Your task to perform on an android device: Open ESPN.com Image 0: 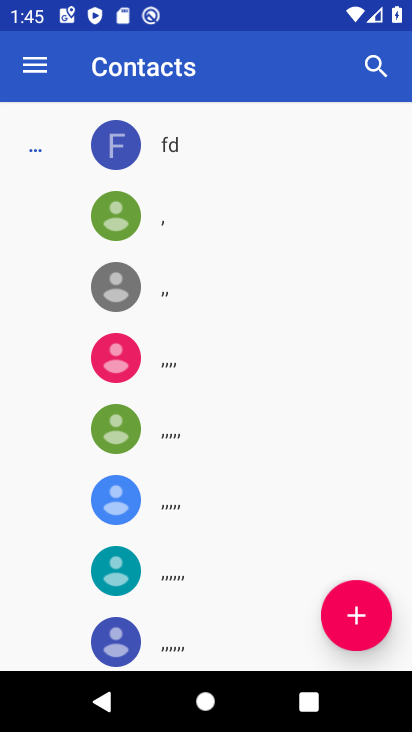
Step 0: press home button
Your task to perform on an android device: Open ESPN.com Image 1: 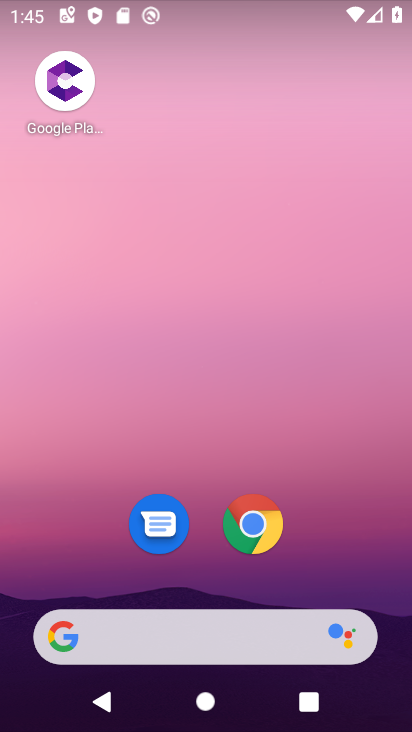
Step 1: click (235, 637)
Your task to perform on an android device: Open ESPN.com Image 2: 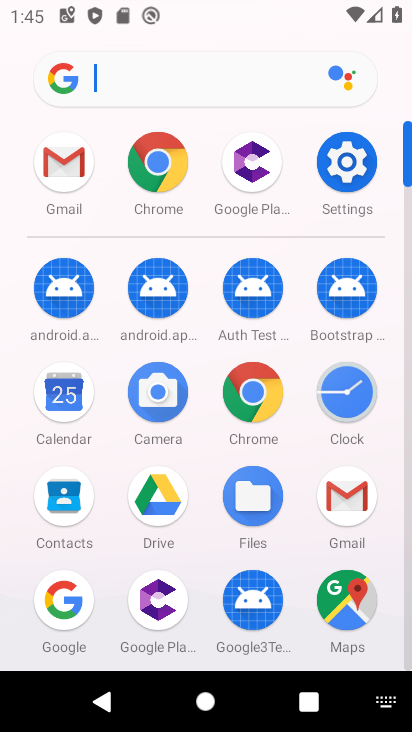
Step 2: type "espn.com"
Your task to perform on an android device: Open ESPN.com Image 3: 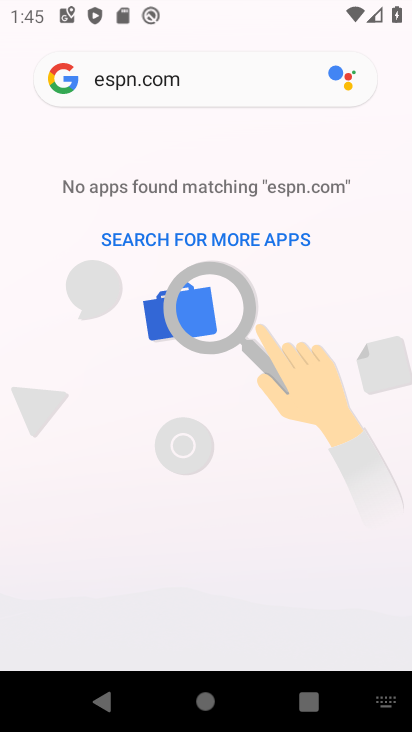
Step 3: click (207, 309)
Your task to perform on an android device: Open ESPN.com Image 4: 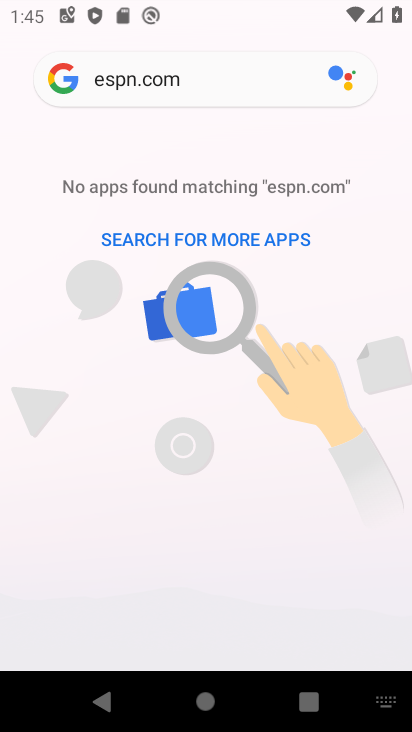
Step 4: press home button
Your task to perform on an android device: Open ESPN.com Image 5: 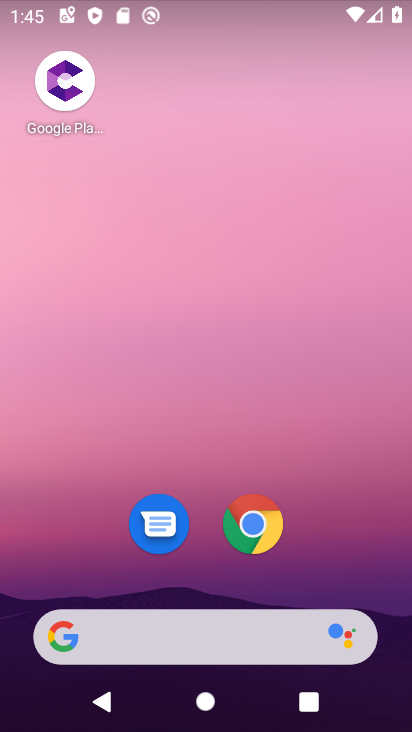
Step 5: click (217, 640)
Your task to perform on an android device: Open ESPN.com Image 6: 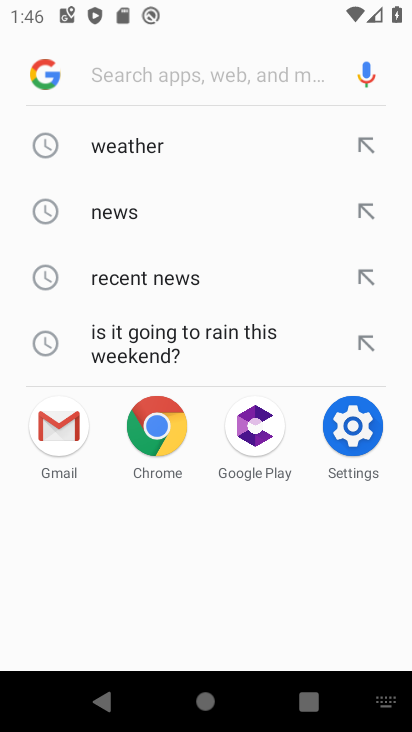
Step 6: type "espn.com"
Your task to perform on an android device: Open ESPN.com Image 7: 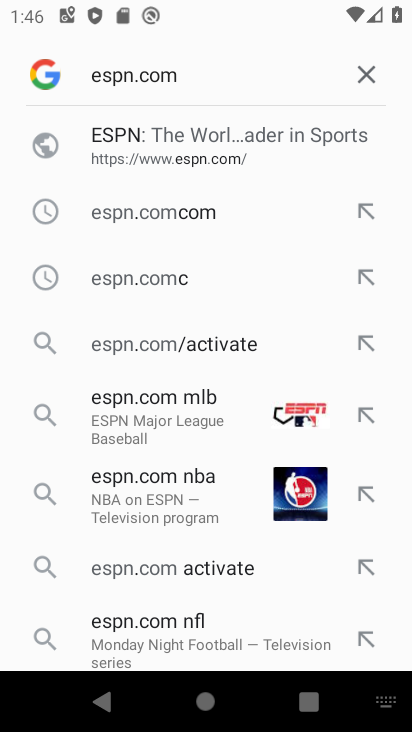
Step 7: click (106, 135)
Your task to perform on an android device: Open ESPN.com Image 8: 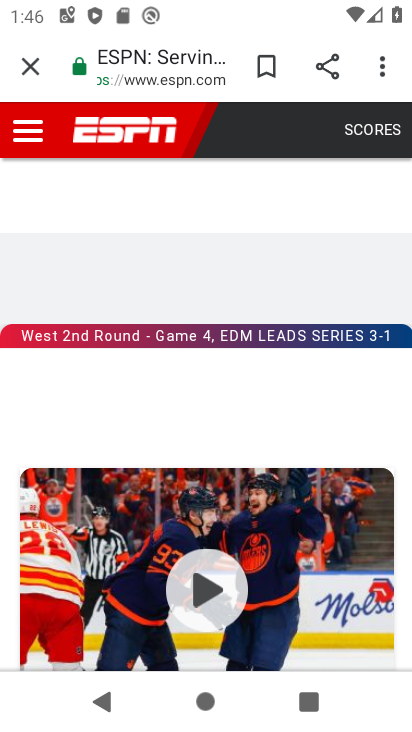
Step 8: task complete